Your task to perform on an android device: Open Maps and search for coffee Image 0: 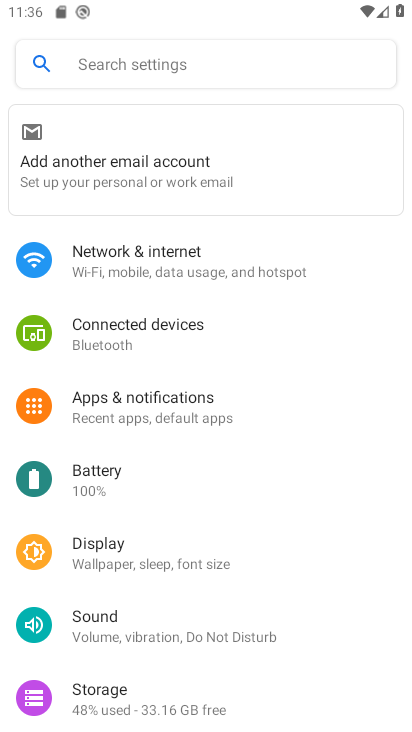
Step 0: press home button
Your task to perform on an android device: Open Maps and search for coffee Image 1: 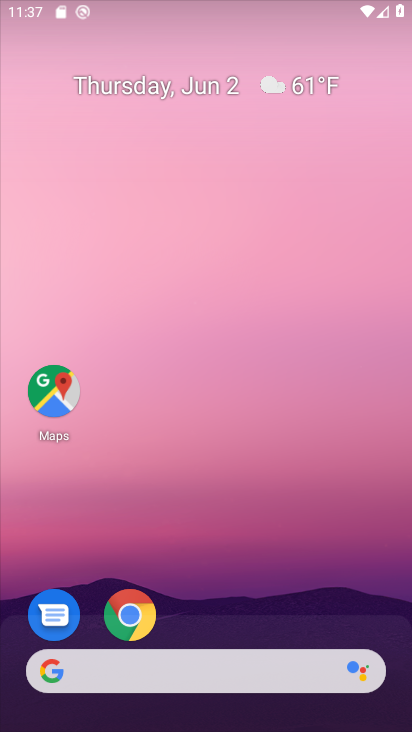
Step 1: click (56, 386)
Your task to perform on an android device: Open Maps and search for coffee Image 2: 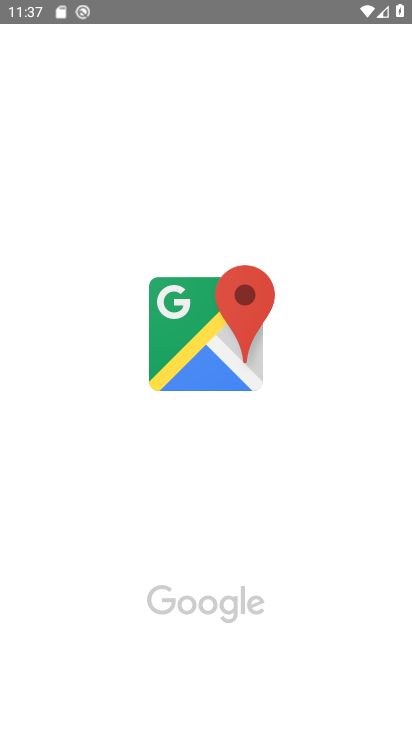
Step 2: click (56, 386)
Your task to perform on an android device: Open Maps and search for coffee Image 3: 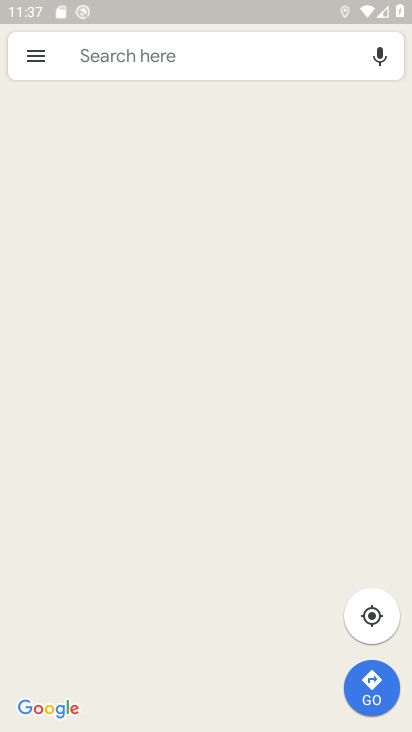
Step 3: click (207, 45)
Your task to perform on an android device: Open Maps and search for coffee Image 4: 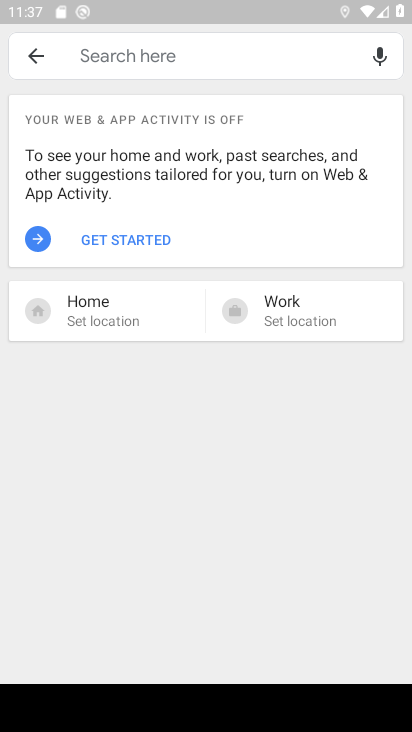
Step 4: click (242, 46)
Your task to perform on an android device: Open Maps and search for coffee Image 5: 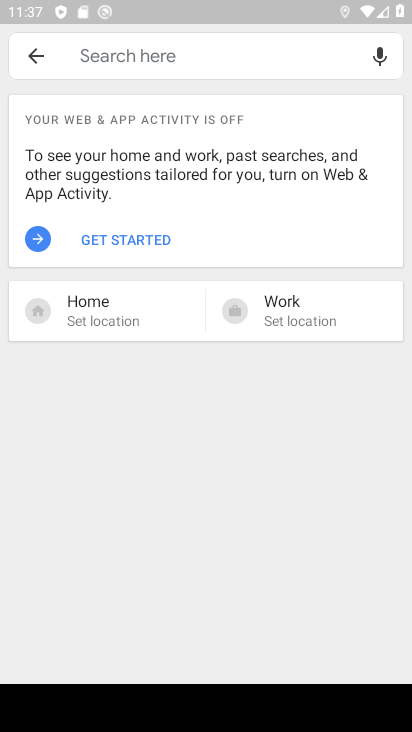
Step 5: type "coffee"
Your task to perform on an android device: Open Maps and search for coffee Image 6: 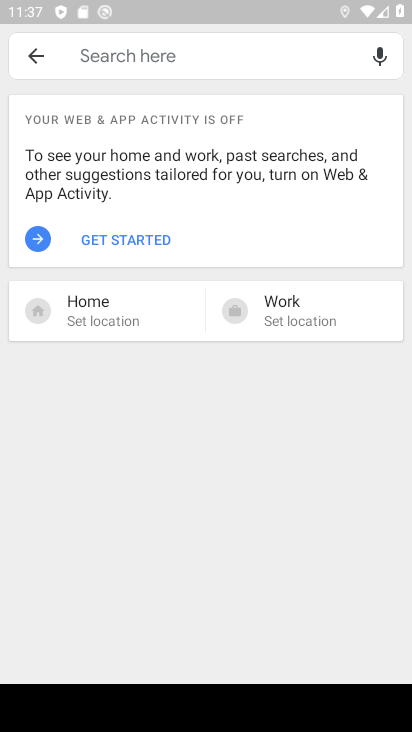
Step 6: click (173, 51)
Your task to perform on an android device: Open Maps and search for coffee Image 7: 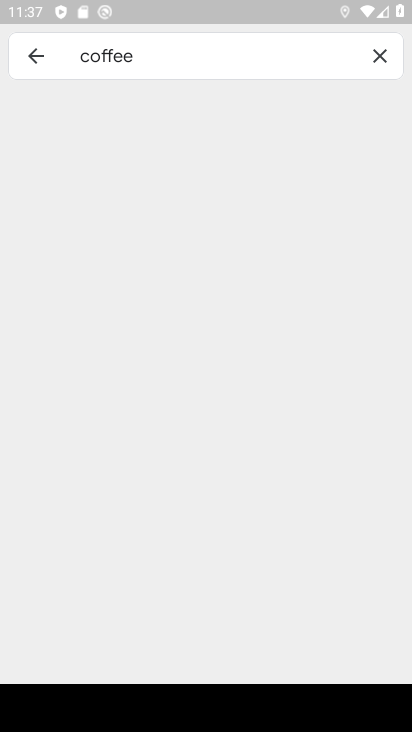
Step 7: click (172, 43)
Your task to perform on an android device: Open Maps and search for coffee Image 8: 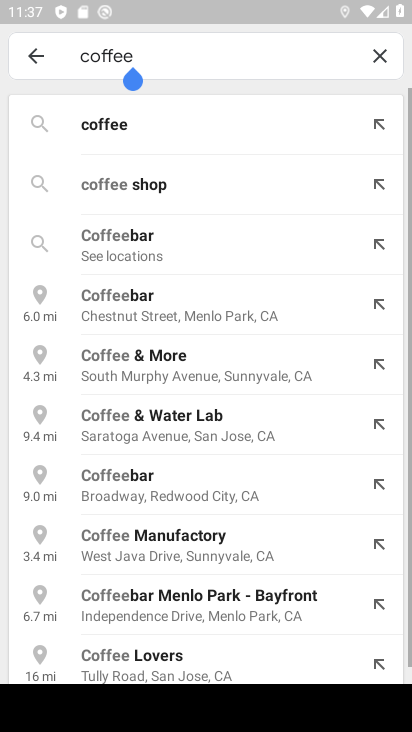
Step 8: click (151, 173)
Your task to perform on an android device: Open Maps and search for coffee Image 9: 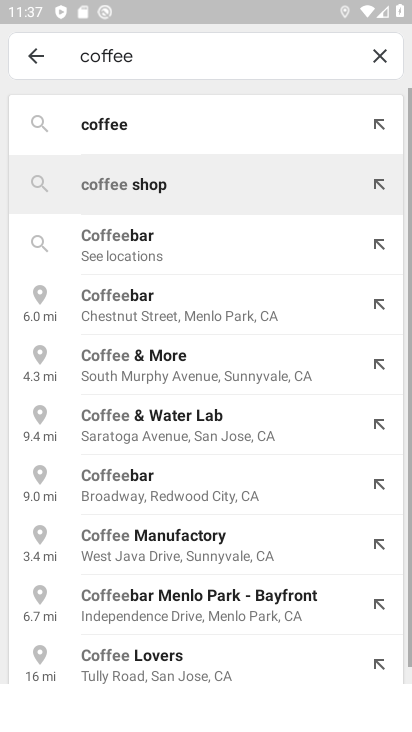
Step 9: task complete